Your task to perform on an android device: change timer sound Image 0: 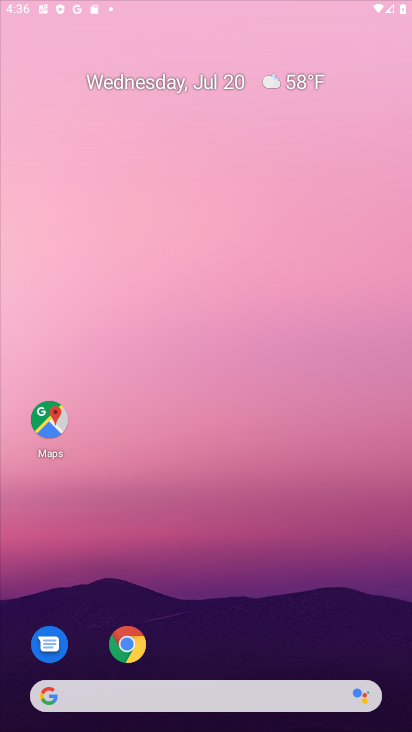
Step 0: press home button
Your task to perform on an android device: change timer sound Image 1: 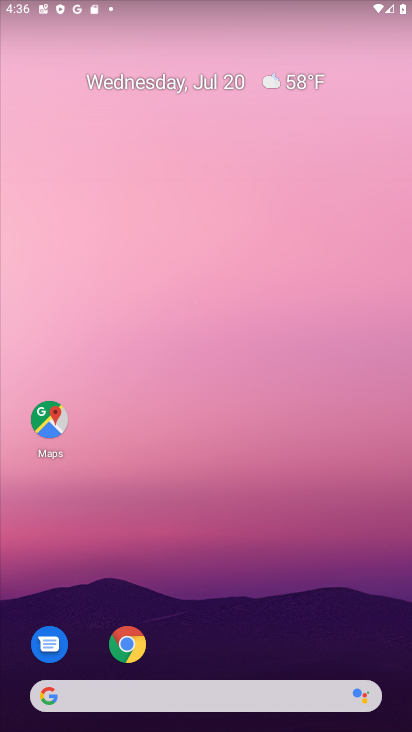
Step 1: drag from (232, 611) to (328, 133)
Your task to perform on an android device: change timer sound Image 2: 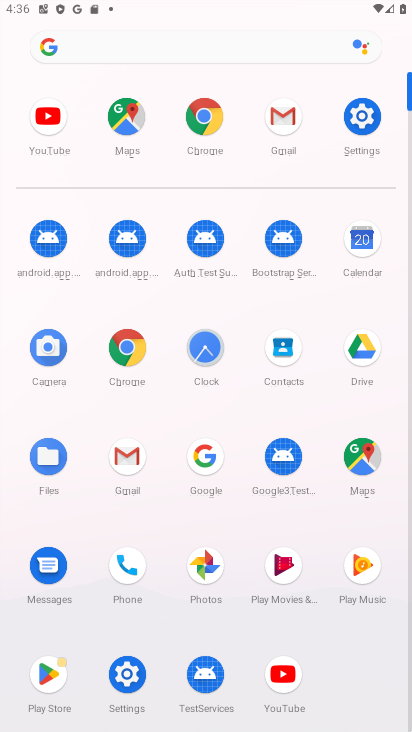
Step 2: click (200, 349)
Your task to perform on an android device: change timer sound Image 3: 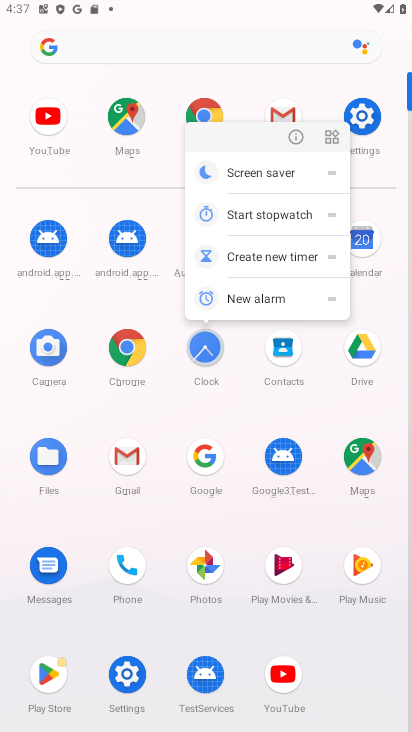
Step 3: click (207, 355)
Your task to perform on an android device: change timer sound Image 4: 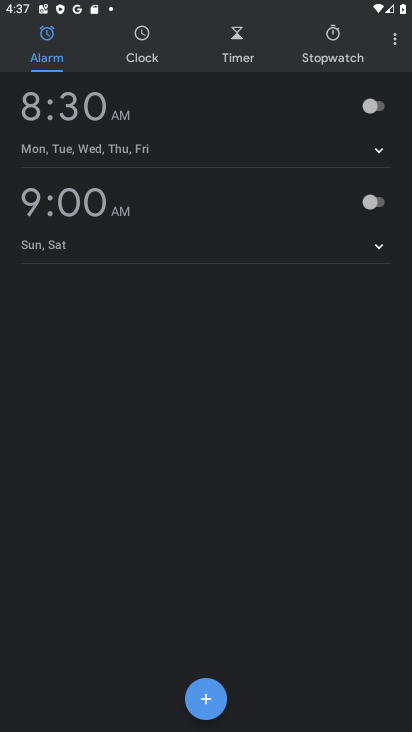
Step 4: click (394, 44)
Your task to perform on an android device: change timer sound Image 5: 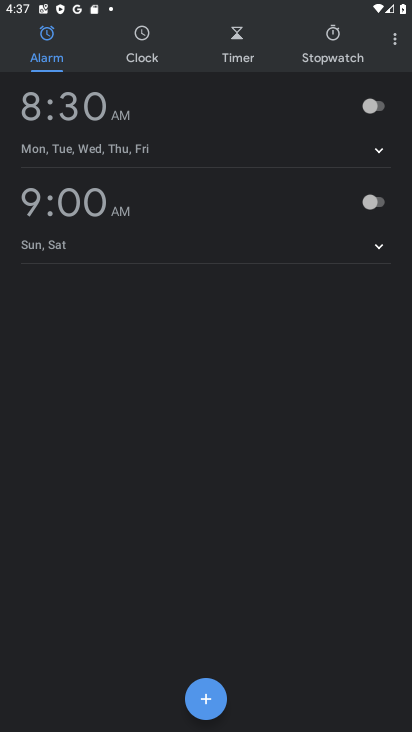
Step 5: click (394, 39)
Your task to perform on an android device: change timer sound Image 6: 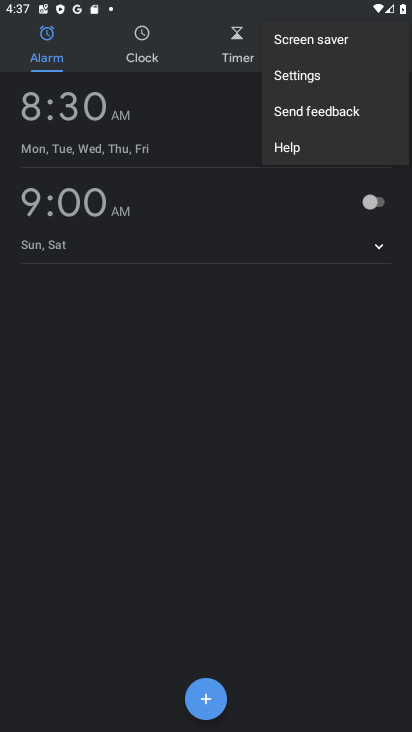
Step 6: click (303, 77)
Your task to perform on an android device: change timer sound Image 7: 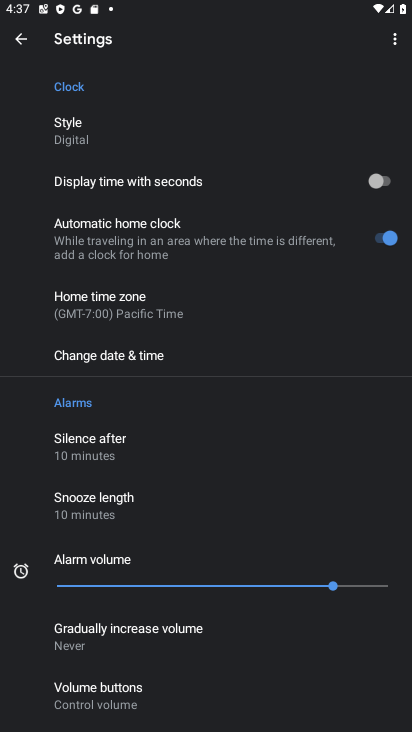
Step 7: drag from (272, 491) to (291, 76)
Your task to perform on an android device: change timer sound Image 8: 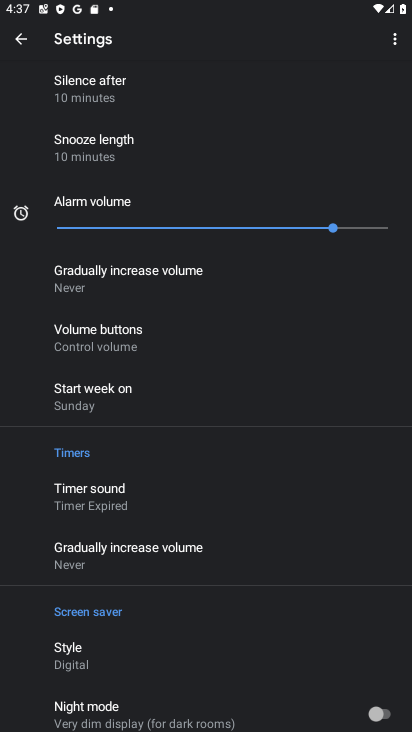
Step 8: click (83, 489)
Your task to perform on an android device: change timer sound Image 9: 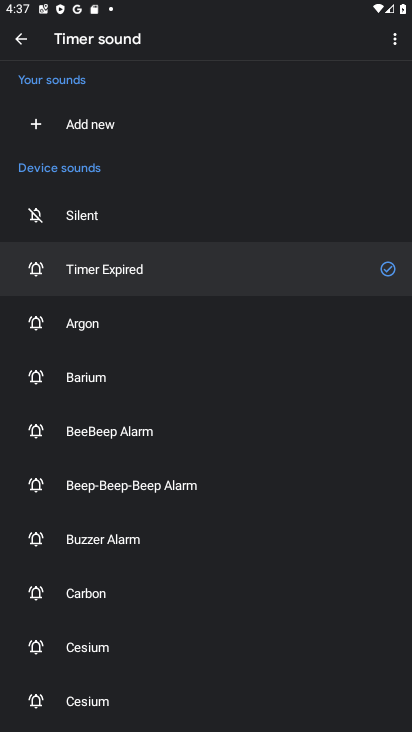
Step 9: click (86, 323)
Your task to perform on an android device: change timer sound Image 10: 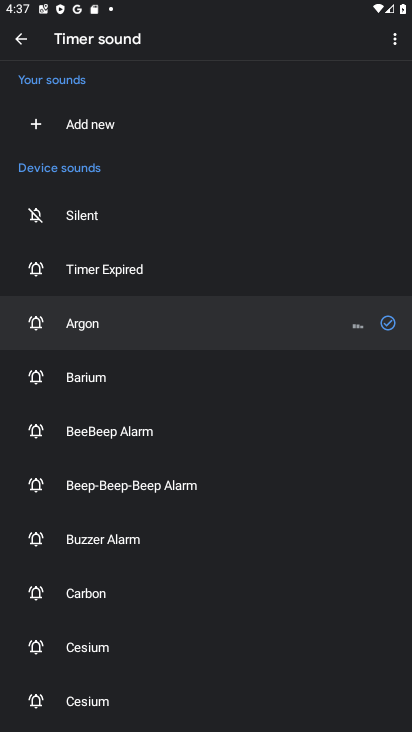
Step 10: task complete